Your task to perform on an android device: Show me recent news Image 0: 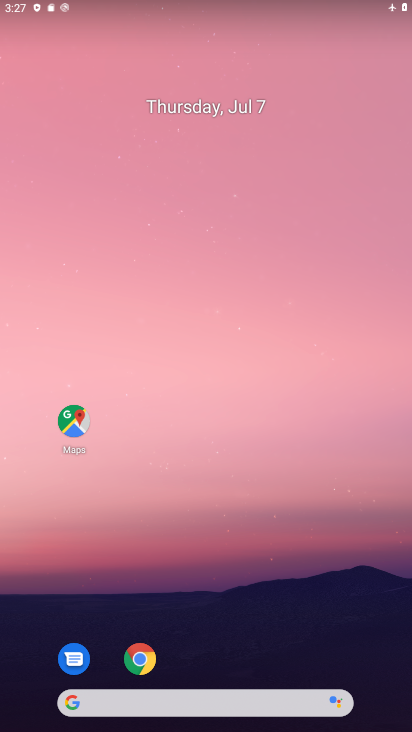
Step 0: drag from (212, 617) to (219, 12)
Your task to perform on an android device: Show me recent news Image 1: 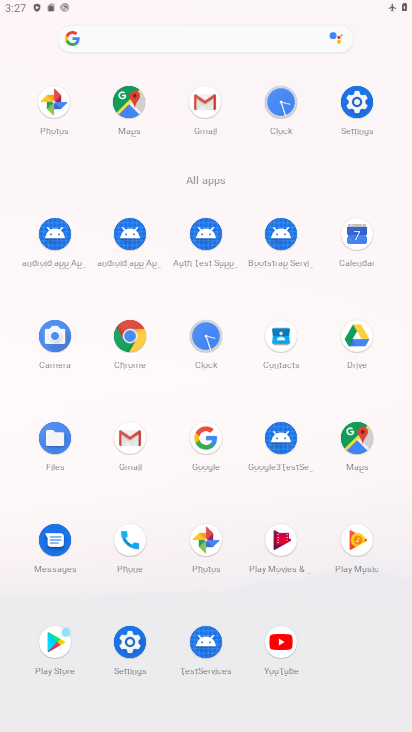
Step 1: click (220, 41)
Your task to perform on an android device: Show me recent news Image 2: 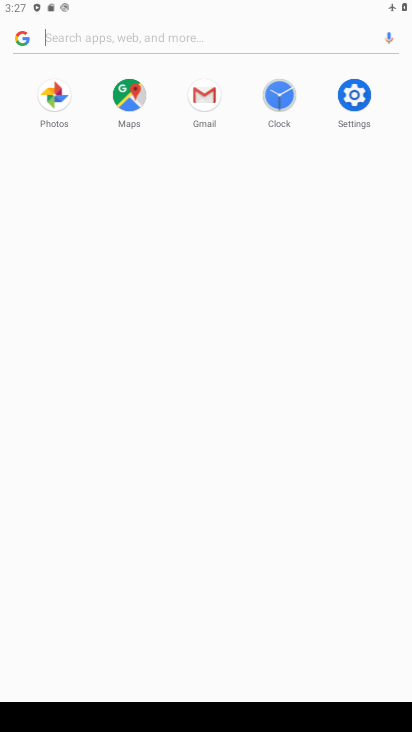
Step 2: type "recent news"
Your task to perform on an android device: Show me recent news Image 3: 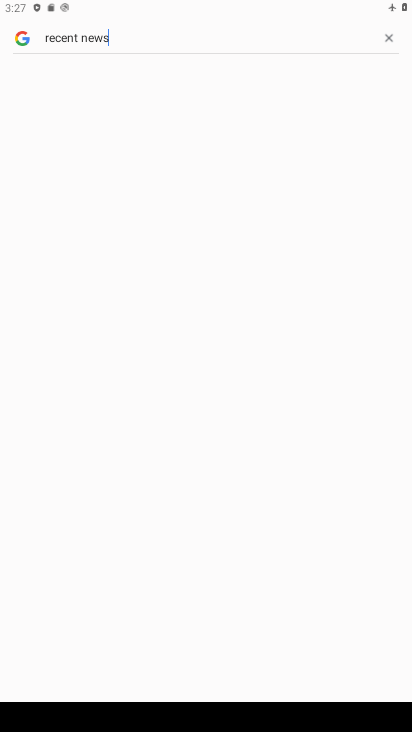
Step 3: click (133, 121)
Your task to perform on an android device: Show me recent news Image 4: 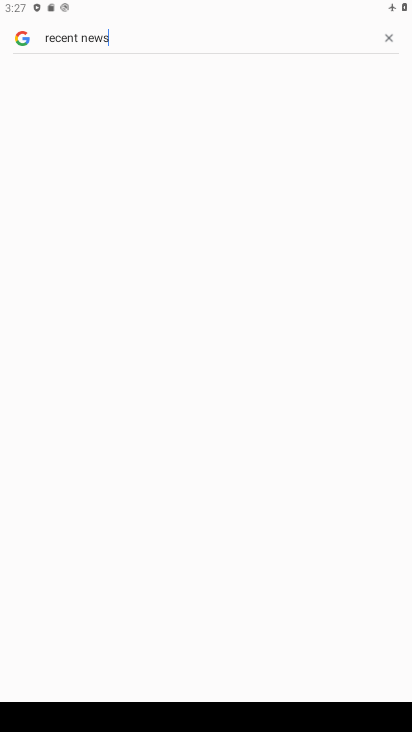
Step 4: task complete